Your task to perform on an android device: Open Wikipedia Image 0: 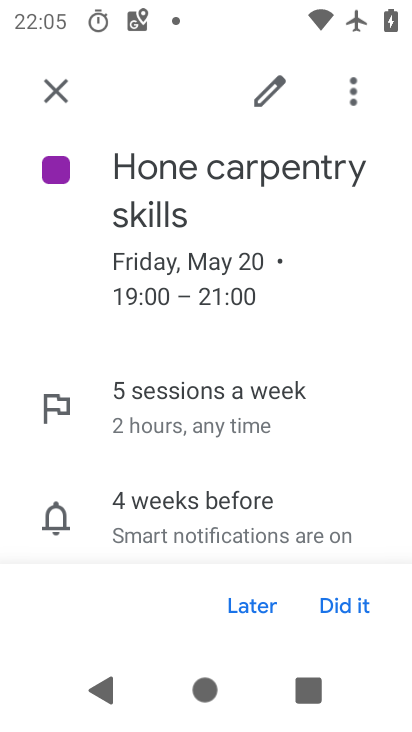
Step 0: press home button
Your task to perform on an android device: Open Wikipedia Image 1: 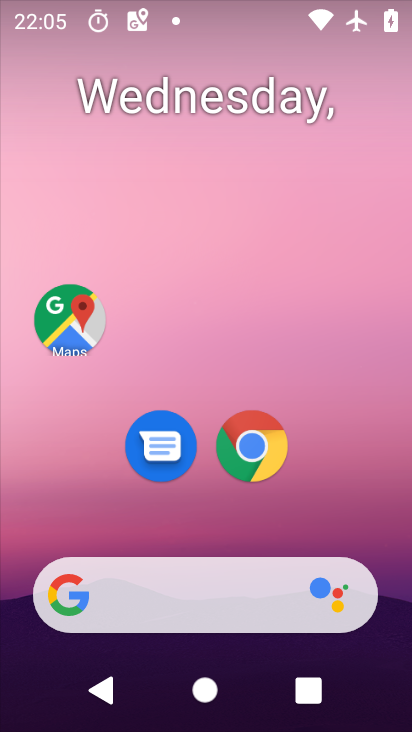
Step 1: click (254, 437)
Your task to perform on an android device: Open Wikipedia Image 2: 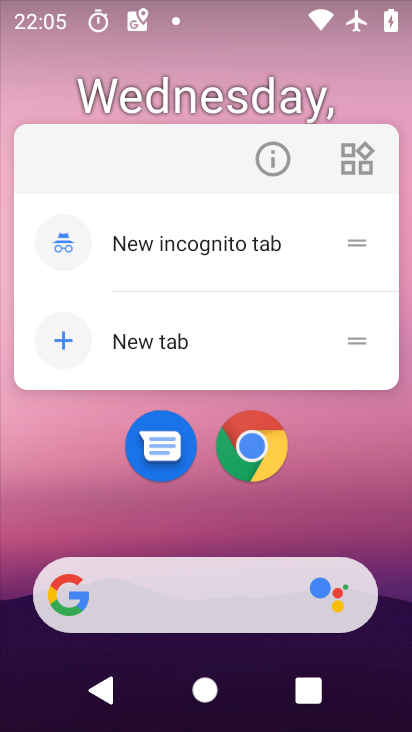
Step 2: click (258, 453)
Your task to perform on an android device: Open Wikipedia Image 3: 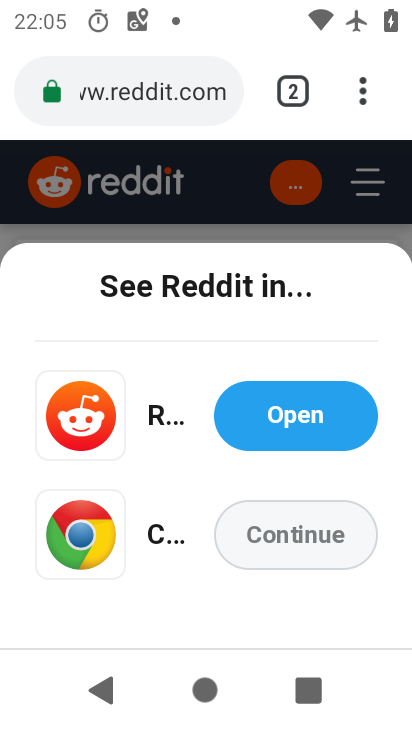
Step 3: drag from (365, 83) to (120, 179)
Your task to perform on an android device: Open Wikipedia Image 4: 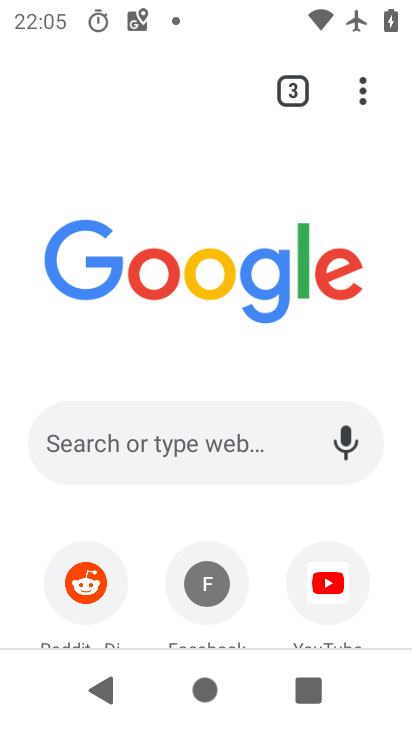
Step 4: drag from (218, 491) to (275, 259)
Your task to perform on an android device: Open Wikipedia Image 5: 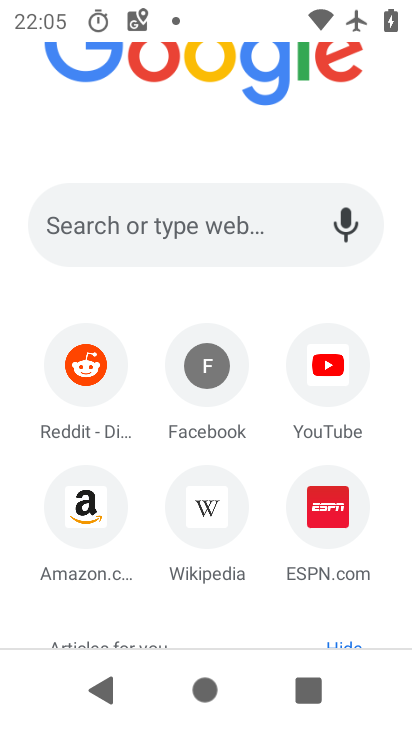
Step 5: click (217, 499)
Your task to perform on an android device: Open Wikipedia Image 6: 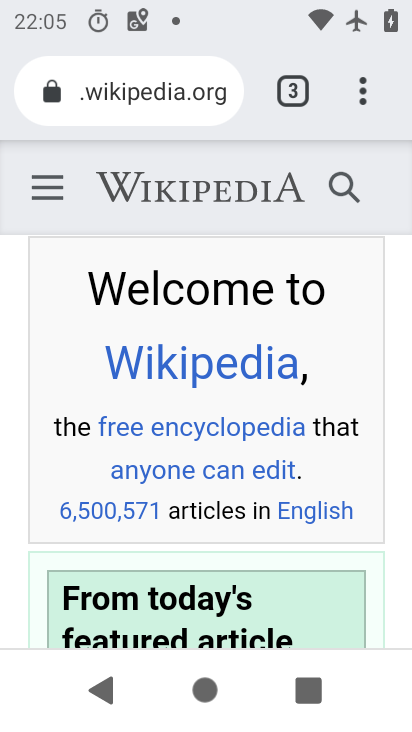
Step 6: task complete